Your task to perform on an android device: snooze an email in the gmail app Image 0: 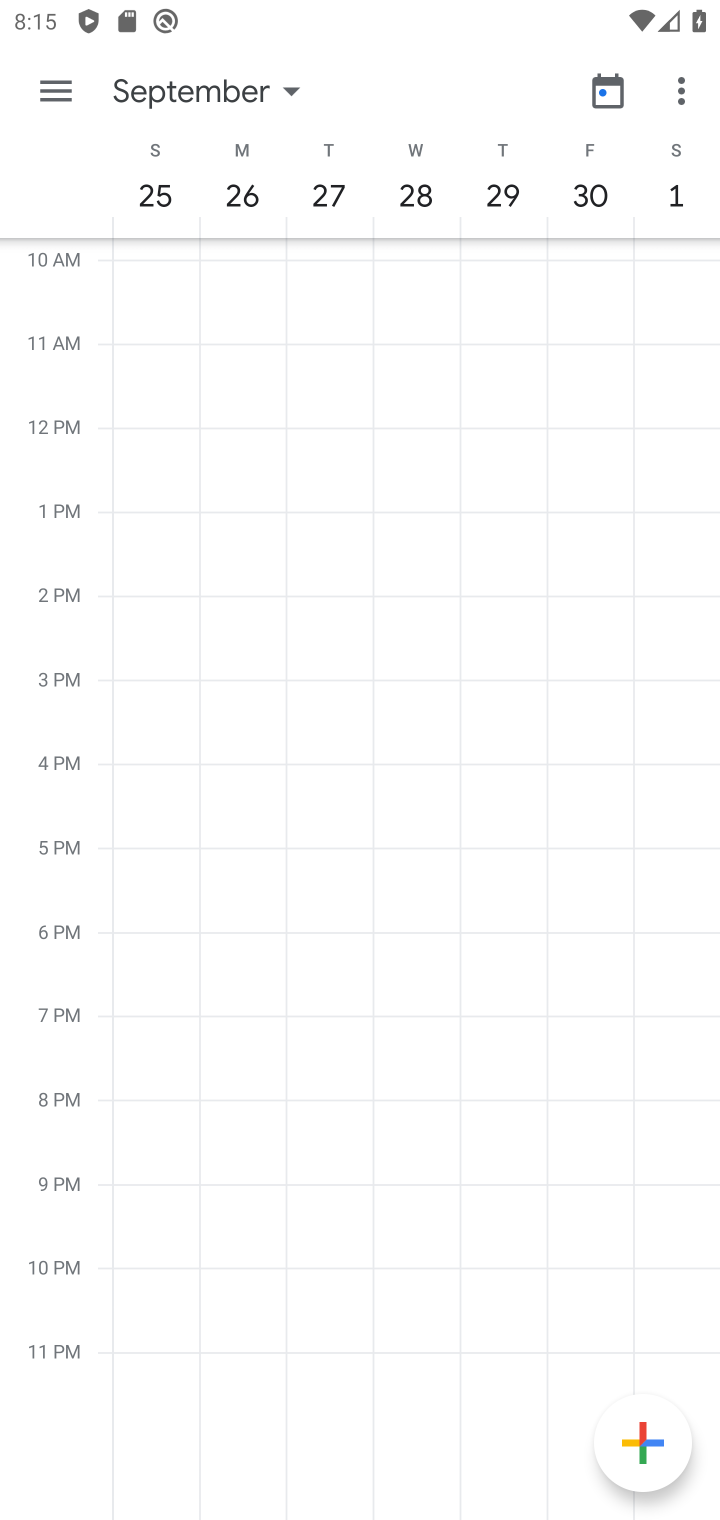
Step 0: press home button
Your task to perform on an android device: snooze an email in the gmail app Image 1: 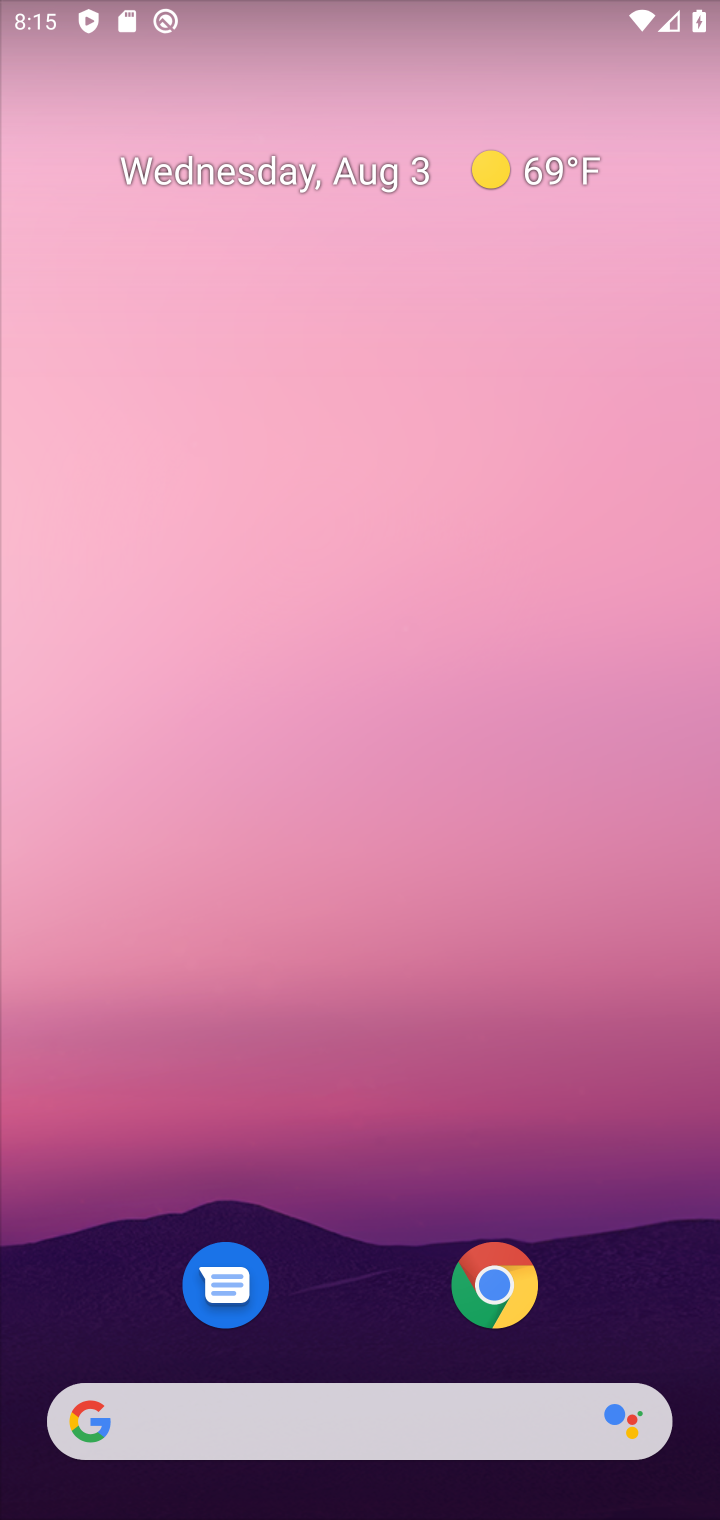
Step 1: drag from (684, 1278) to (720, 340)
Your task to perform on an android device: snooze an email in the gmail app Image 2: 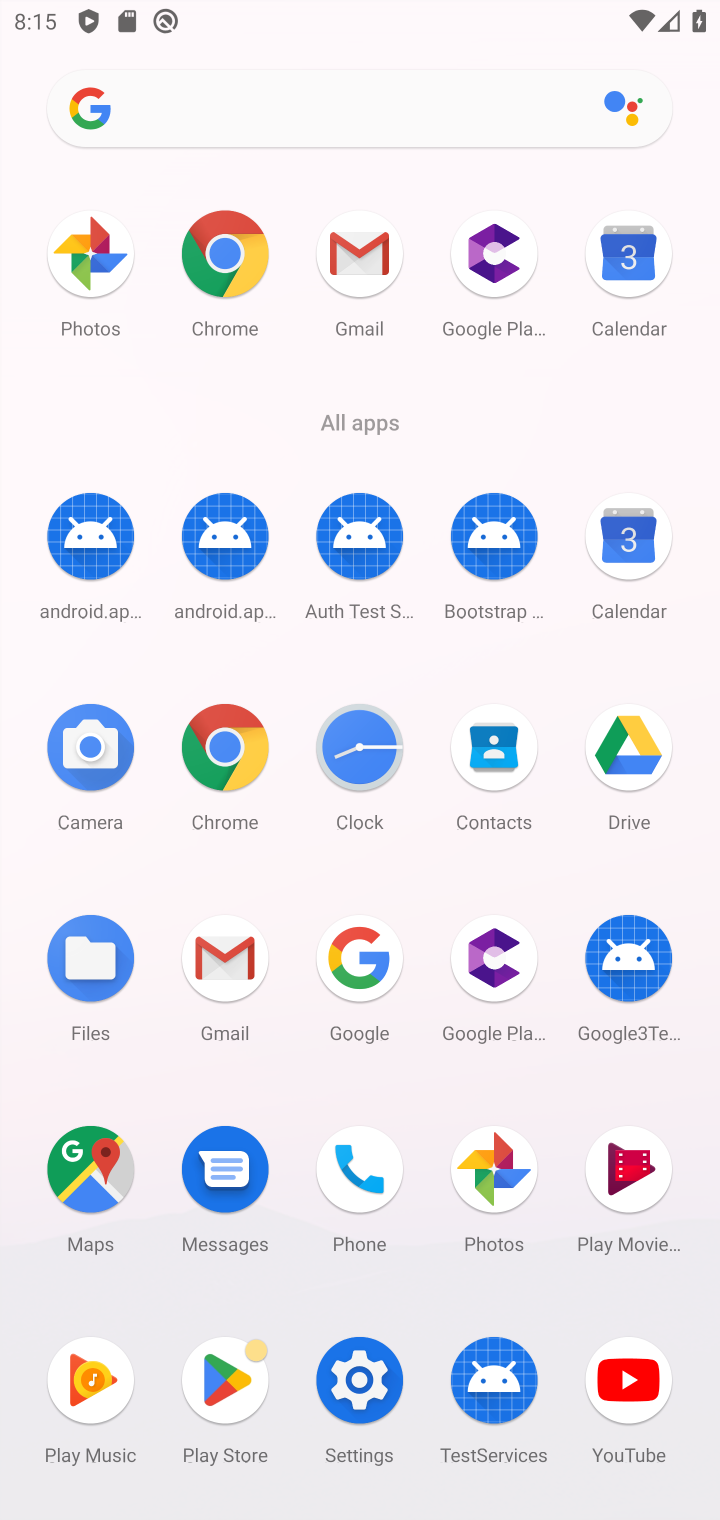
Step 2: click (350, 264)
Your task to perform on an android device: snooze an email in the gmail app Image 3: 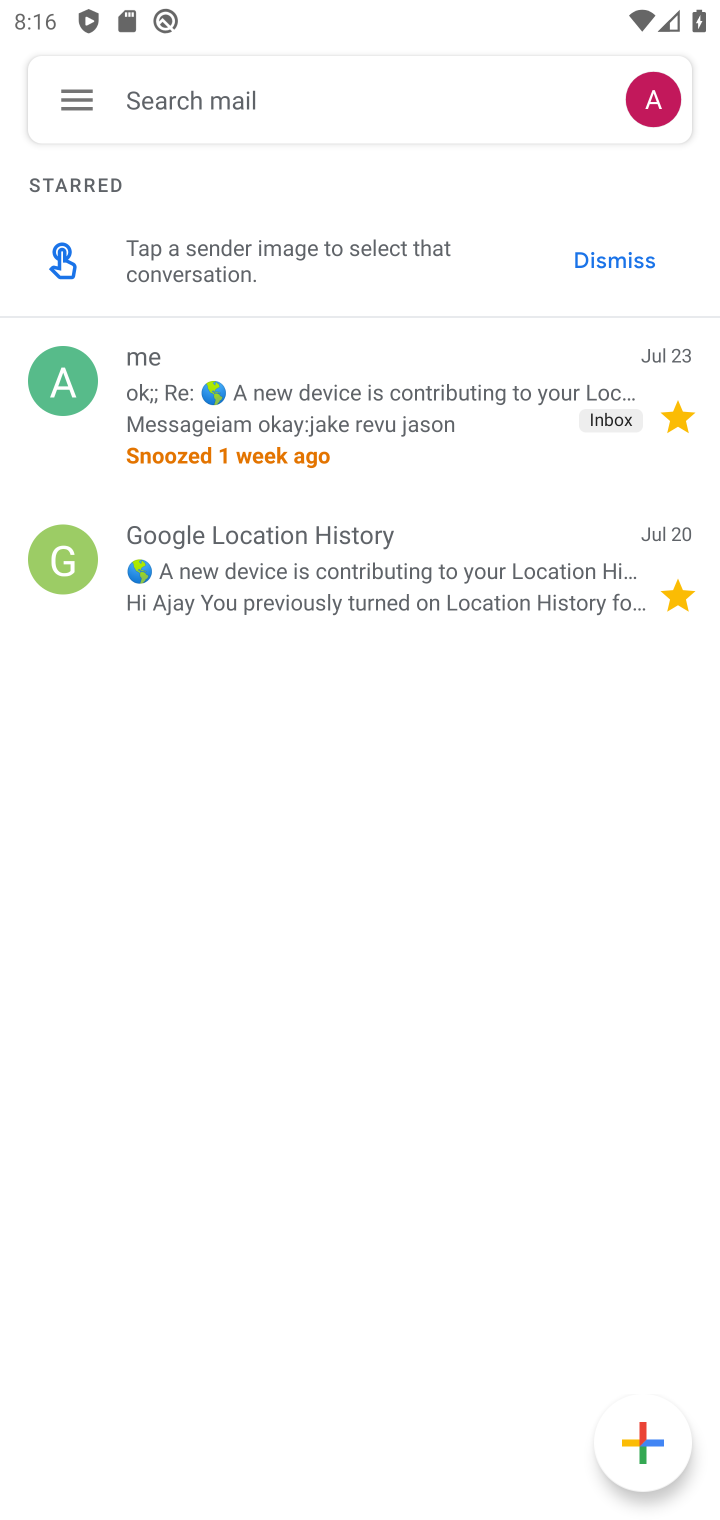
Step 3: click (460, 578)
Your task to perform on an android device: snooze an email in the gmail app Image 4: 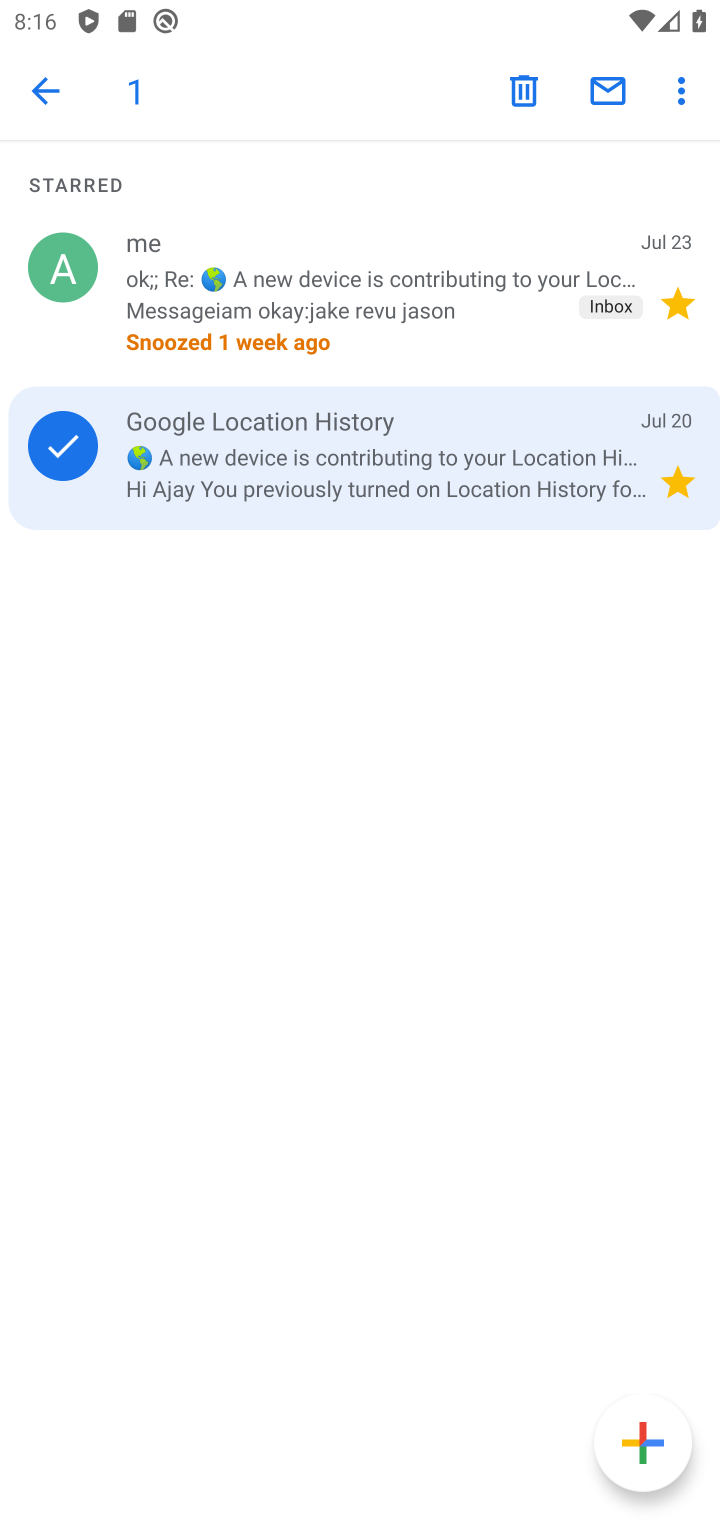
Step 4: click (698, 77)
Your task to perform on an android device: snooze an email in the gmail app Image 5: 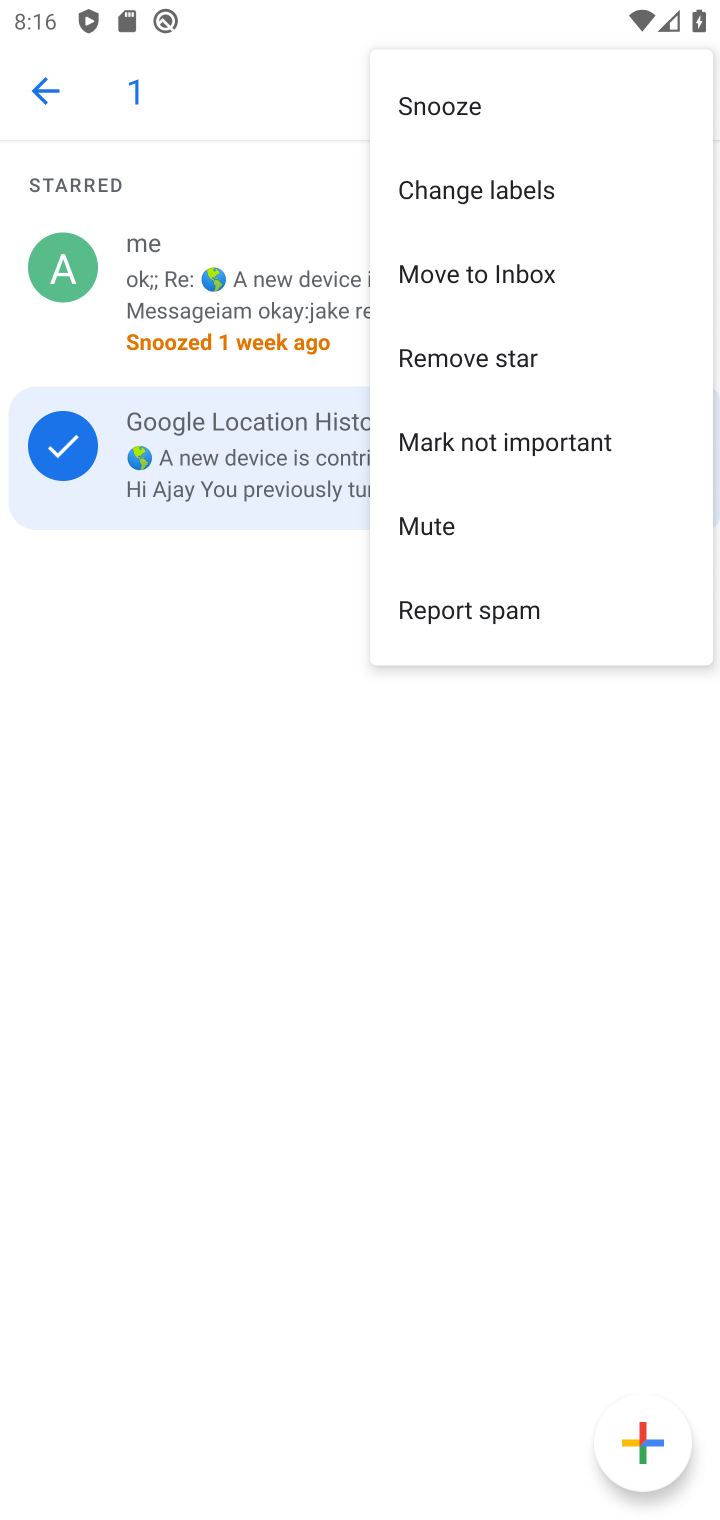
Step 5: click (482, 101)
Your task to perform on an android device: snooze an email in the gmail app Image 6: 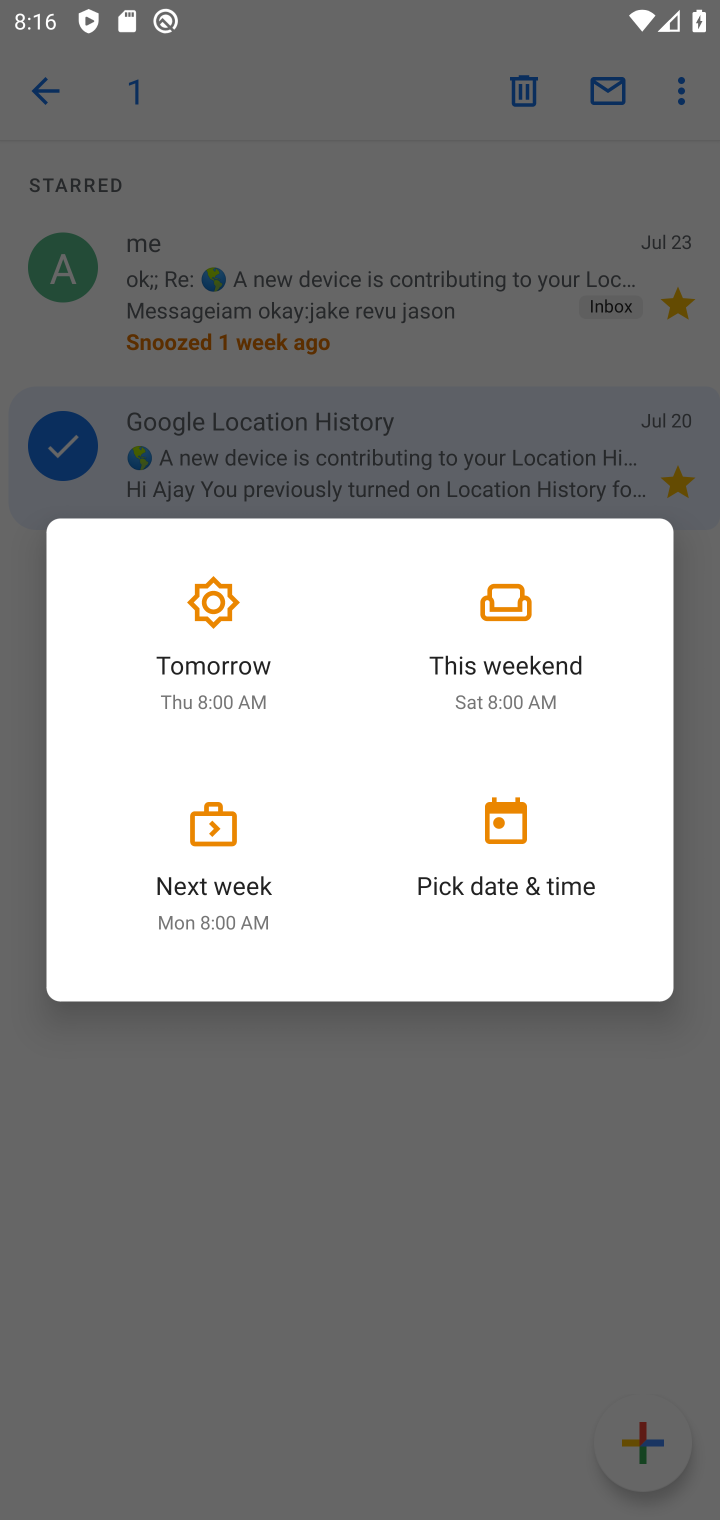
Step 6: click (214, 669)
Your task to perform on an android device: snooze an email in the gmail app Image 7: 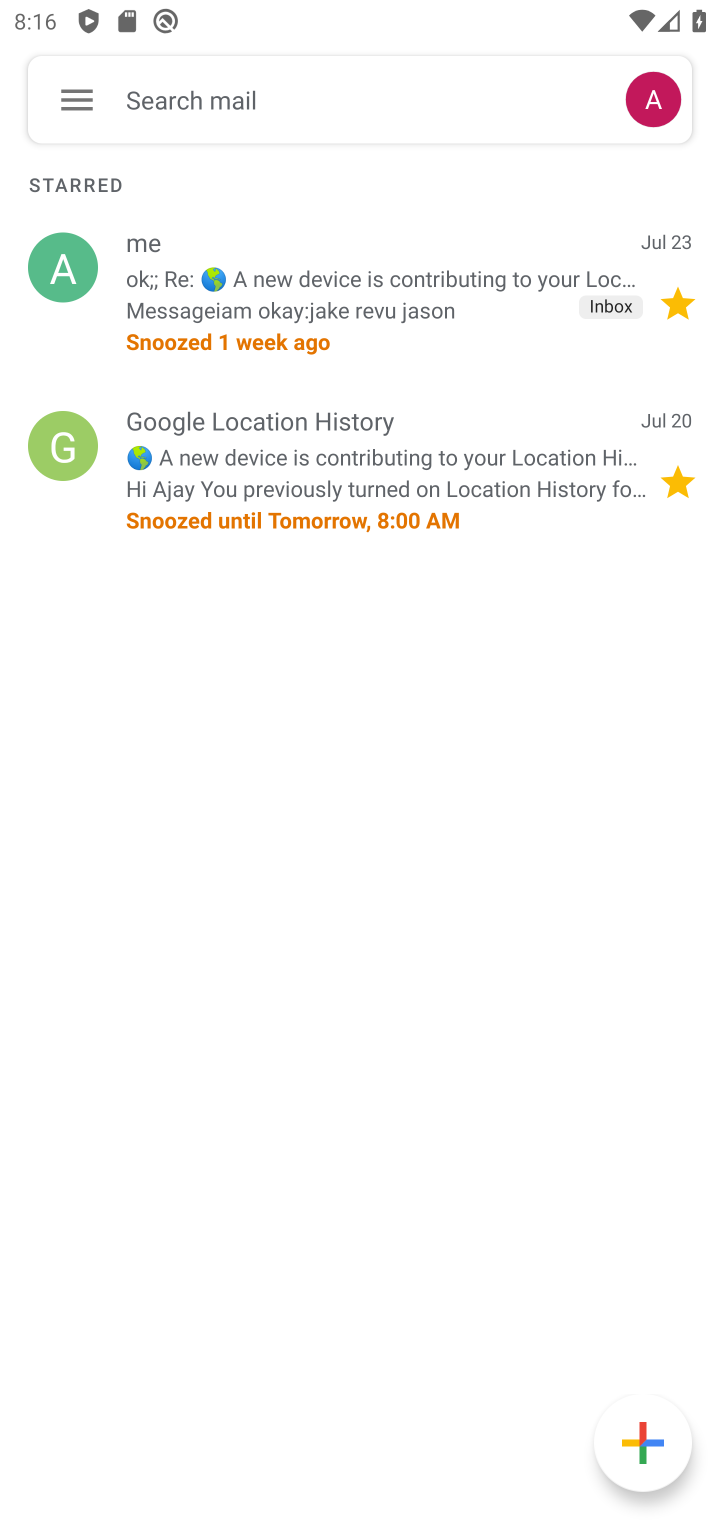
Step 7: task complete